Your task to perform on an android device: Open accessibility settings Image 0: 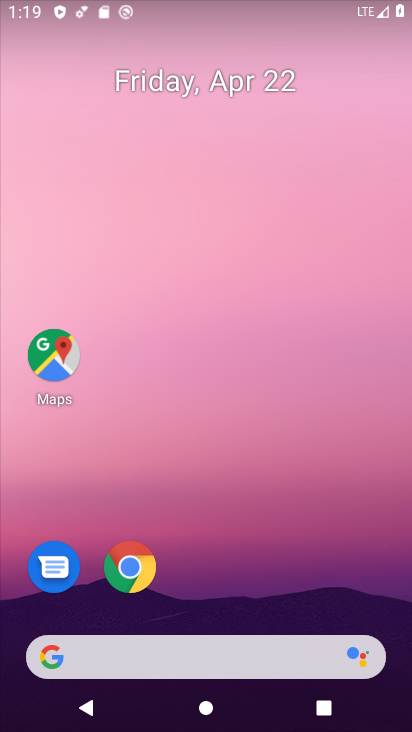
Step 0: drag from (376, 589) to (308, 154)
Your task to perform on an android device: Open accessibility settings Image 1: 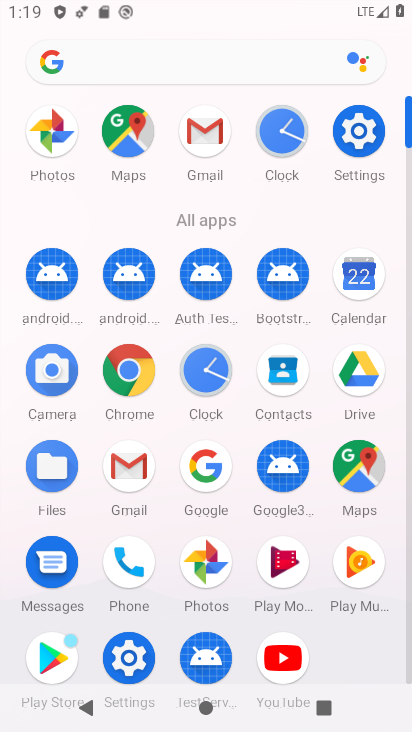
Step 1: click (124, 660)
Your task to perform on an android device: Open accessibility settings Image 2: 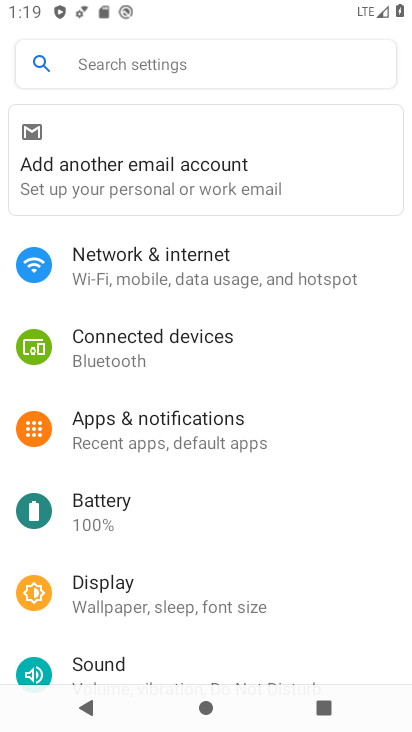
Step 2: drag from (254, 634) to (262, 207)
Your task to perform on an android device: Open accessibility settings Image 3: 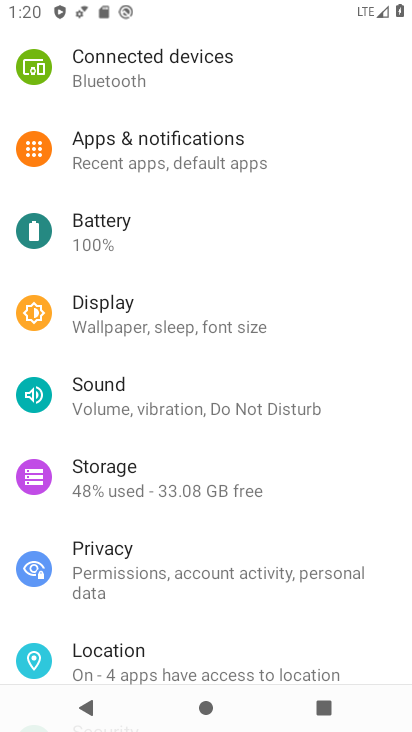
Step 3: drag from (312, 505) to (284, 226)
Your task to perform on an android device: Open accessibility settings Image 4: 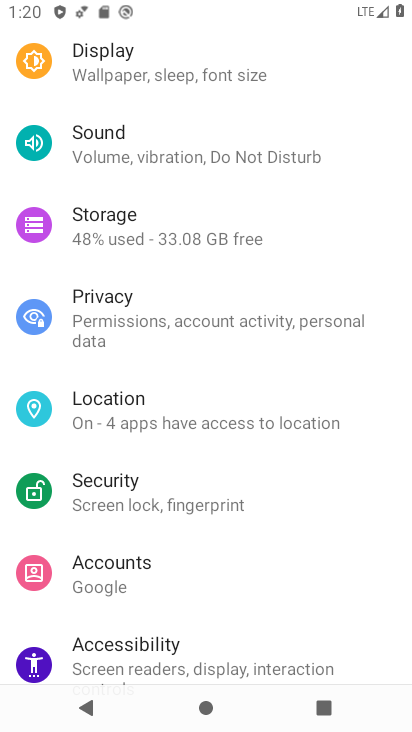
Step 4: click (114, 657)
Your task to perform on an android device: Open accessibility settings Image 5: 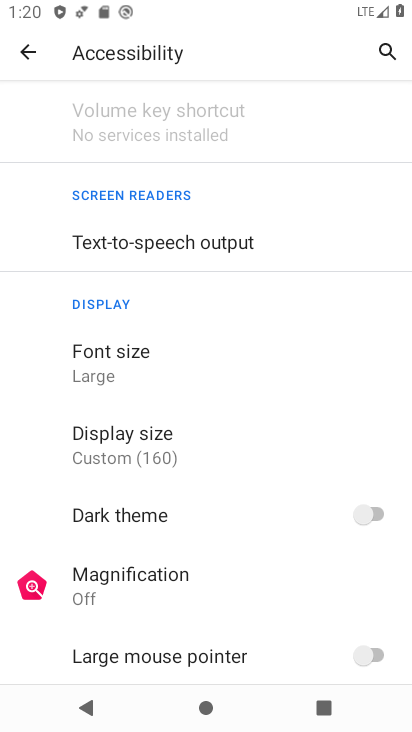
Step 5: task complete